Your task to perform on an android device: add a contact Image 0: 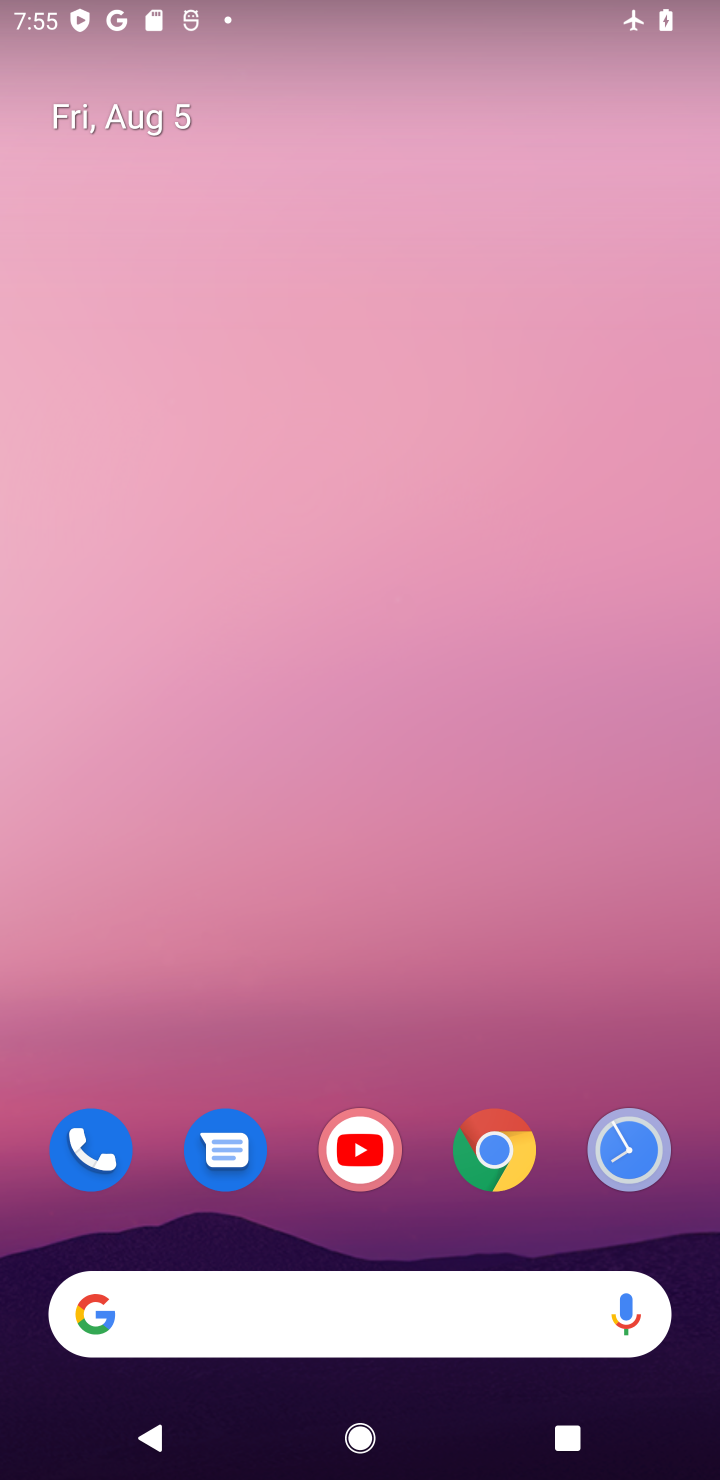
Step 0: drag from (420, 992) to (571, 866)
Your task to perform on an android device: add a contact Image 1: 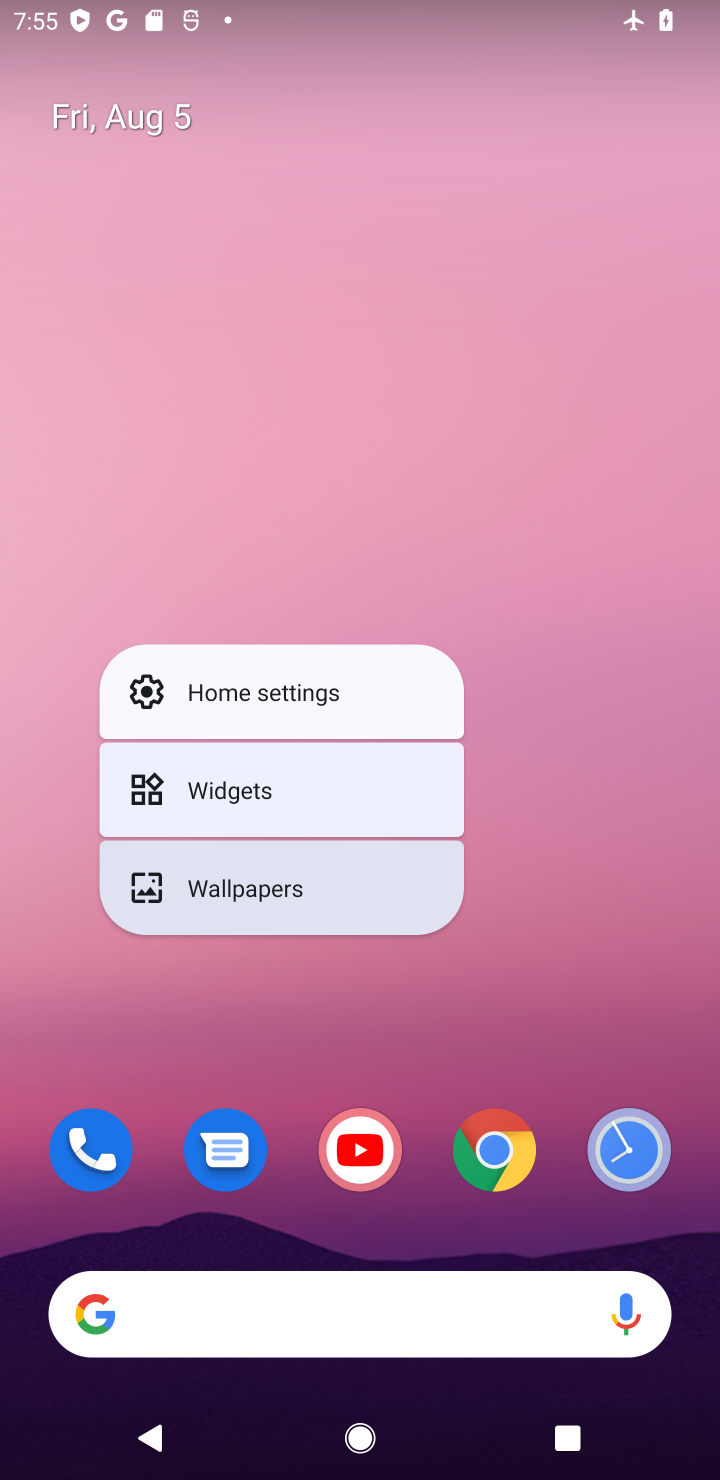
Step 1: click (602, 894)
Your task to perform on an android device: add a contact Image 2: 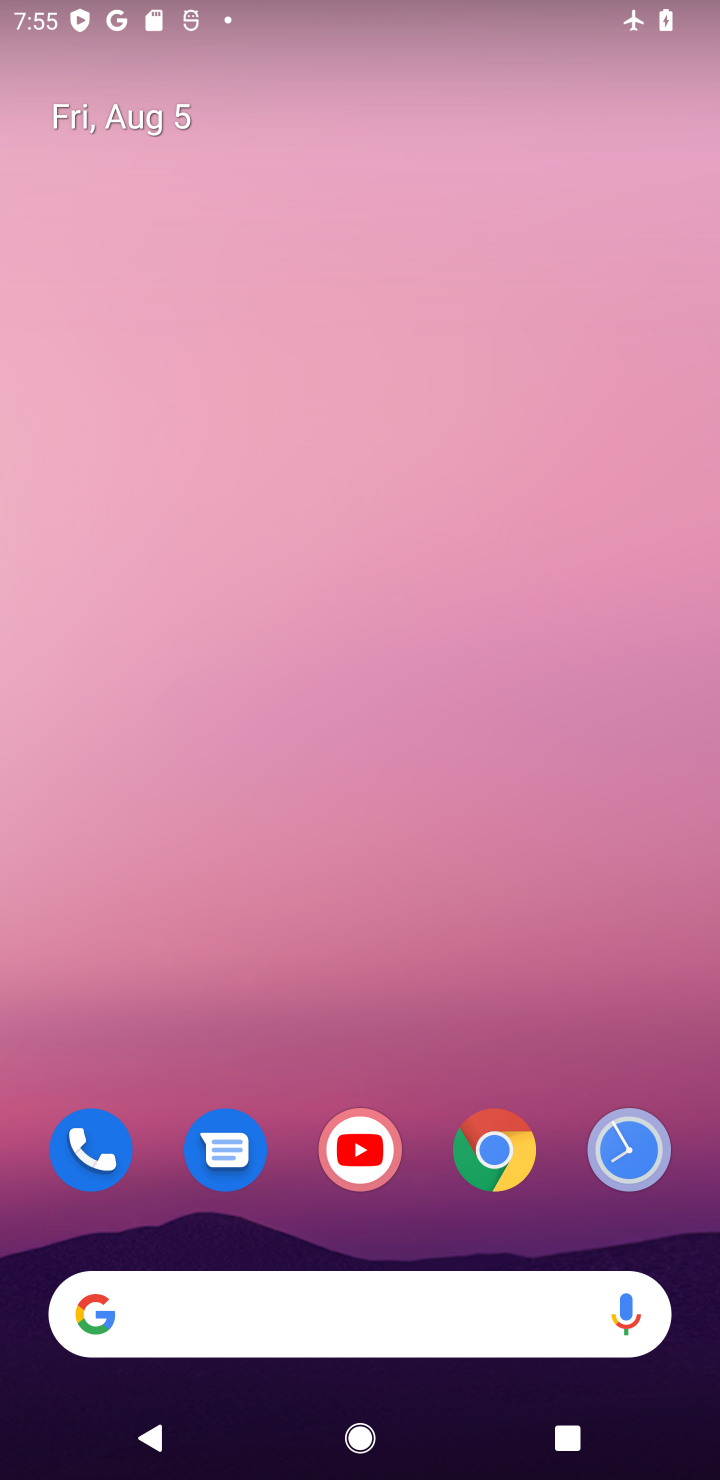
Step 2: drag from (523, 989) to (522, 117)
Your task to perform on an android device: add a contact Image 3: 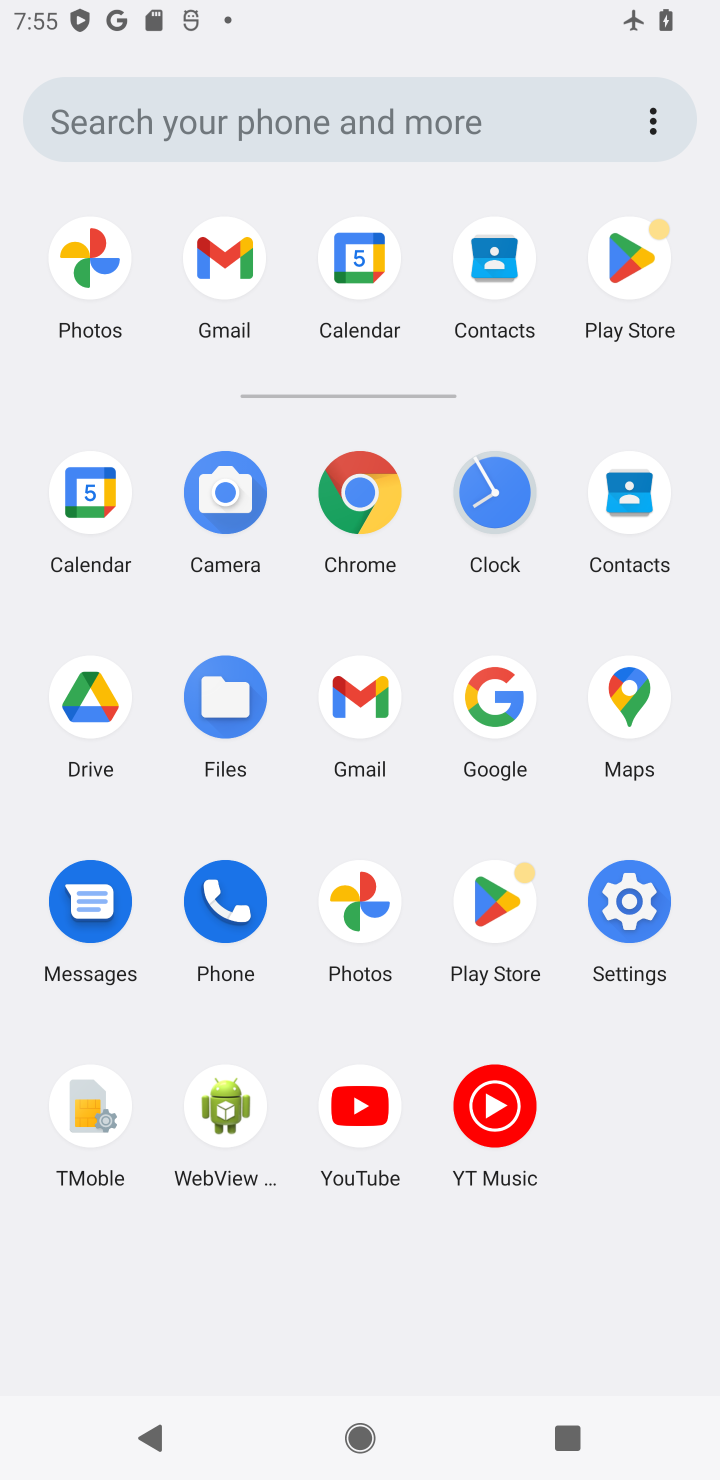
Step 3: click (638, 513)
Your task to perform on an android device: add a contact Image 4: 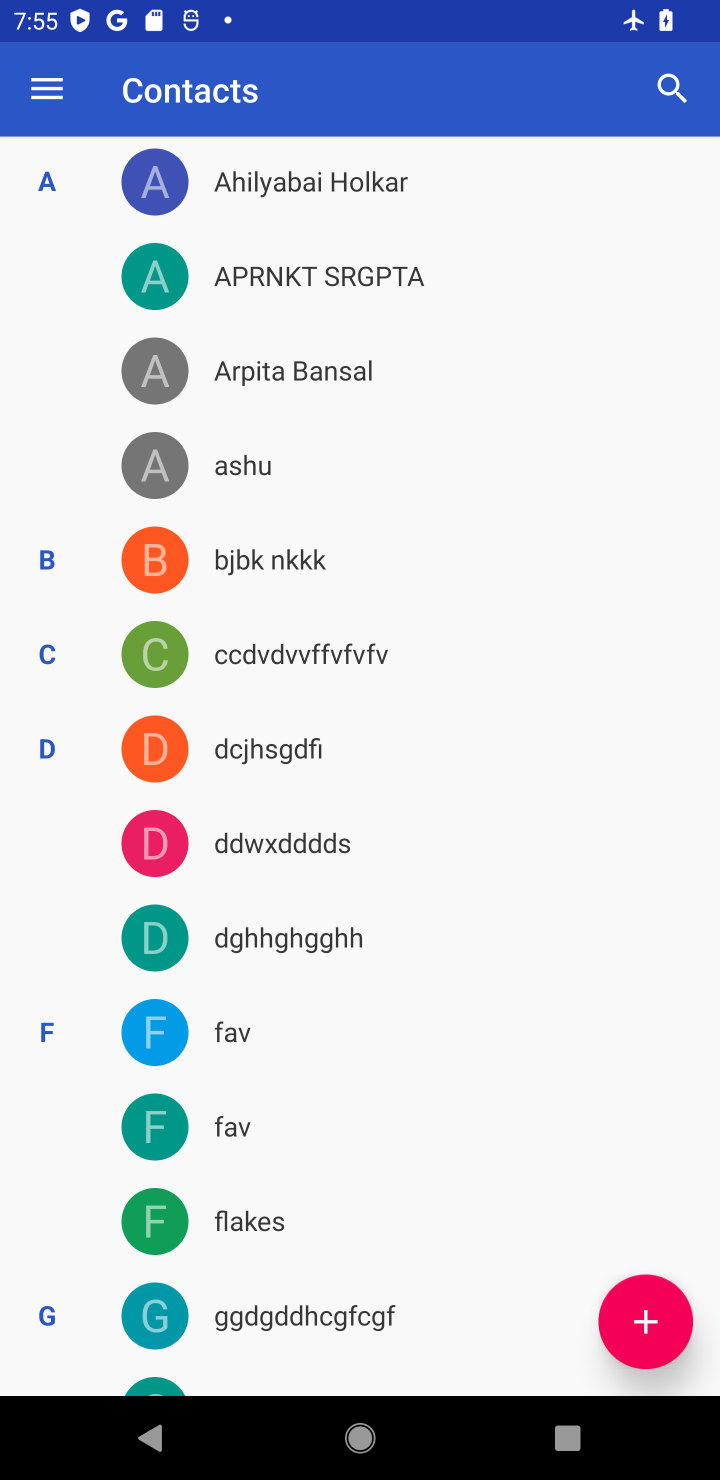
Step 4: click (642, 1312)
Your task to perform on an android device: add a contact Image 5: 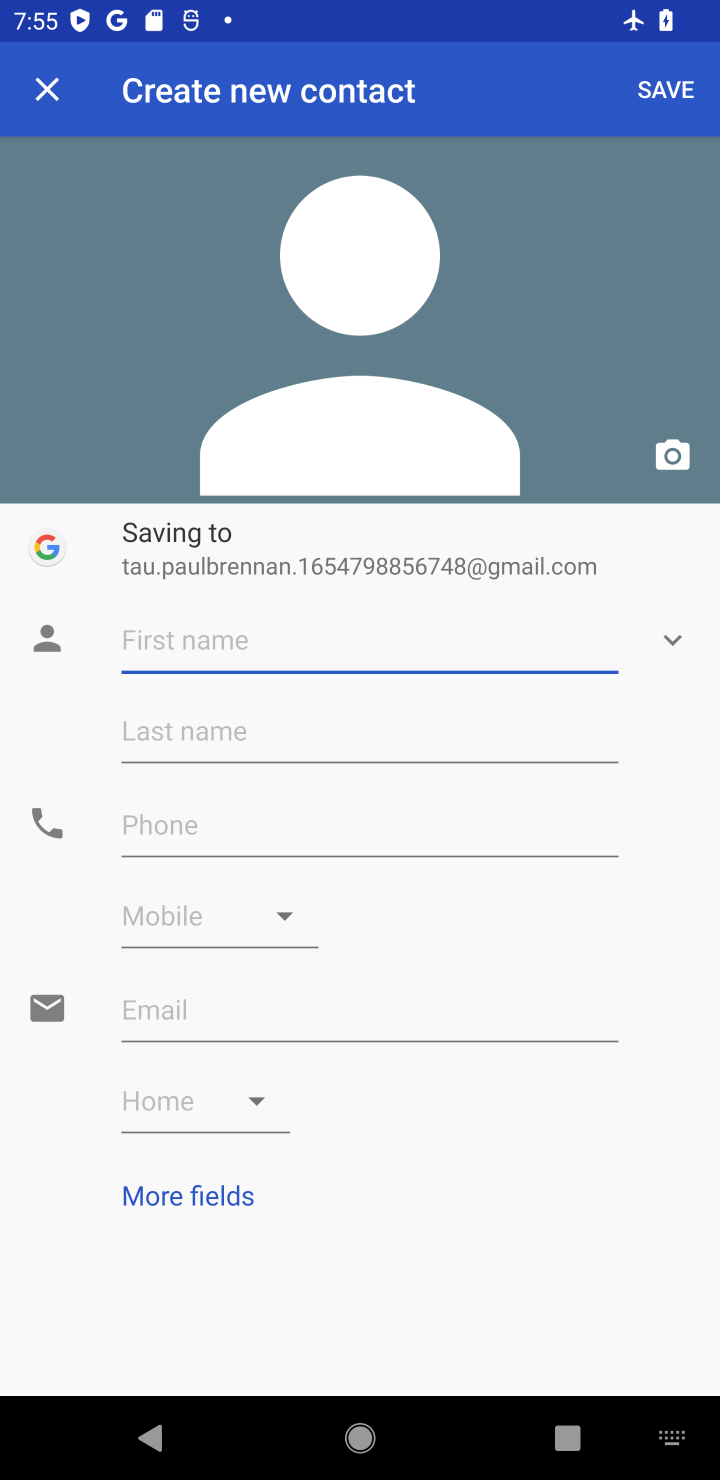
Step 5: type "lolo"
Your task to perform on an android device: add a contact Image 6: 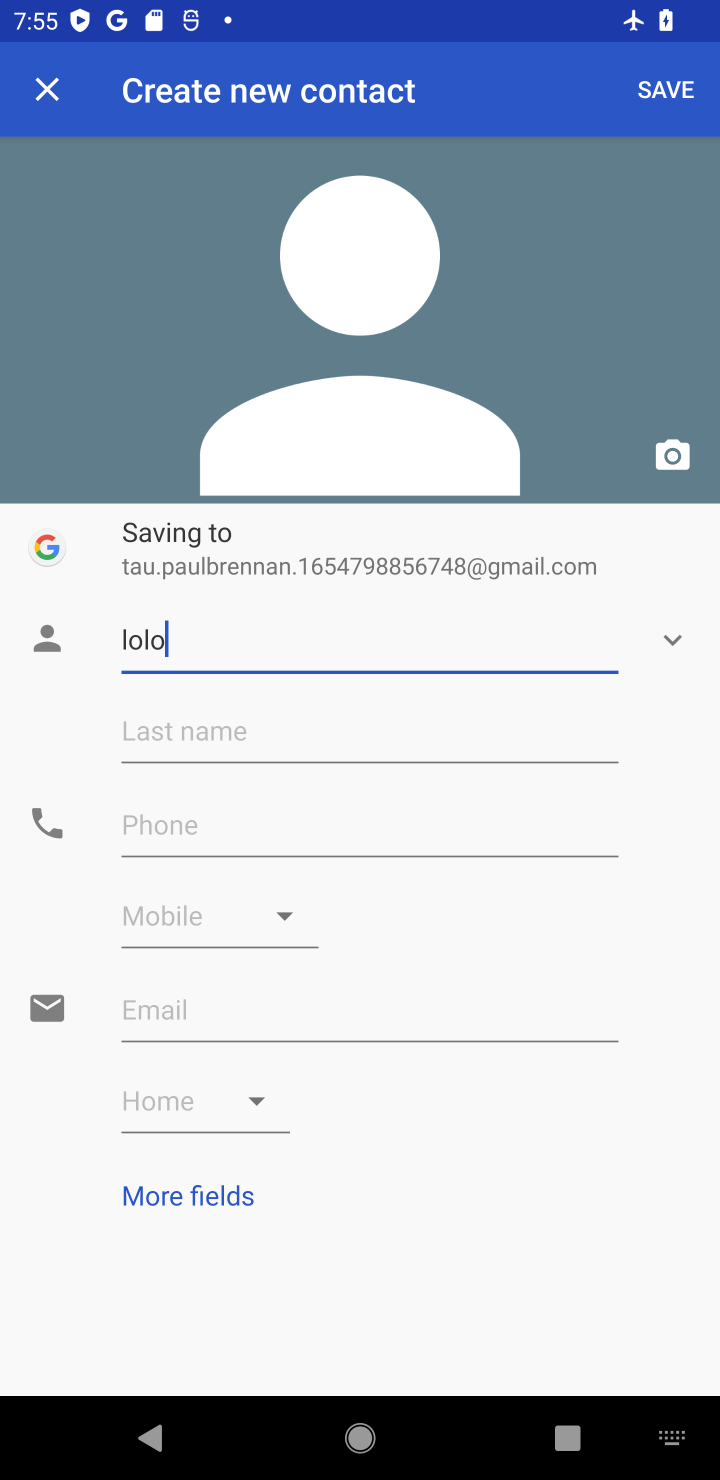
Step 6: click (231, 835)
Your task to perform on an android device: add a contact Image 7: 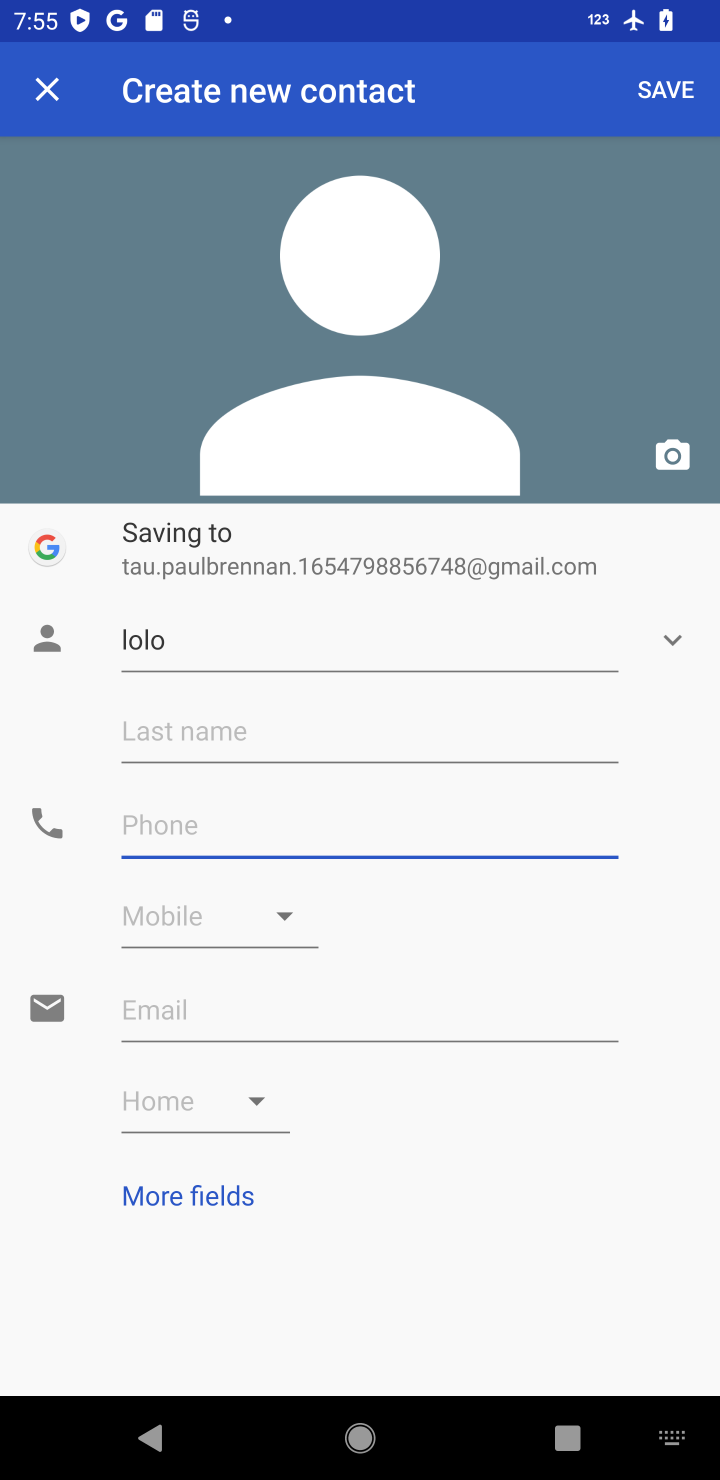
Step 7: type "123456789"
Your task to perform on an android device: add a contact Image 8: 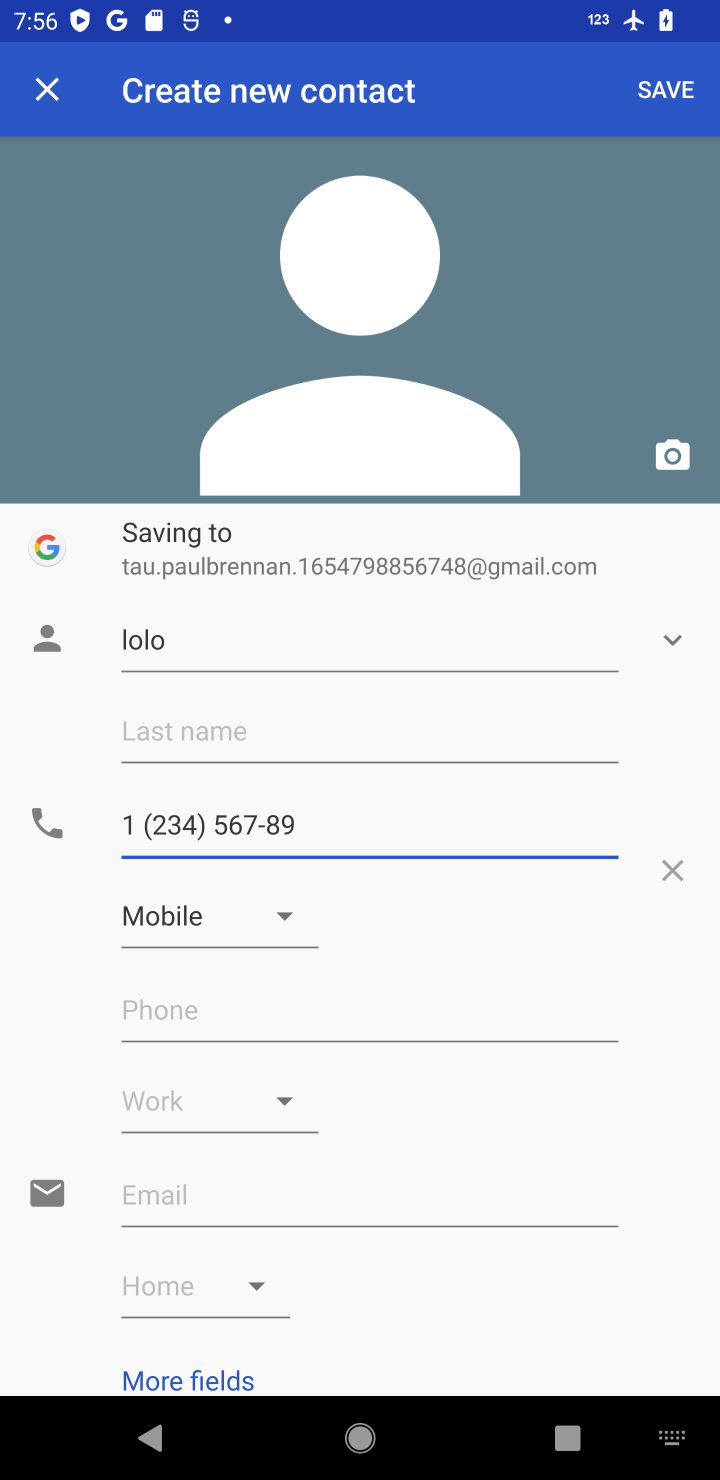
Step 8: click (675, 96)
Your task to perform on an android device: add a contact Image 9: 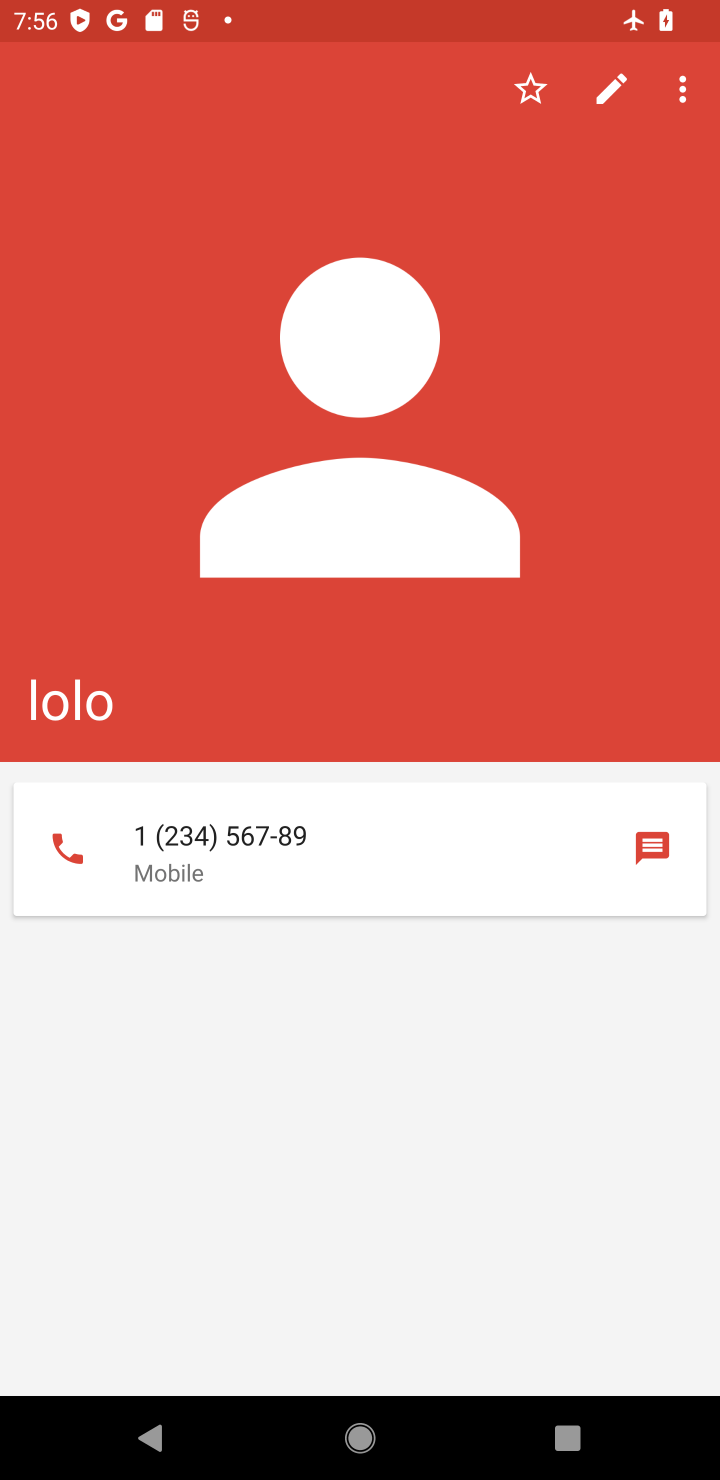
Step 9: task complete